Your task to perform on an android device: Turn on the flashlight Image 0: 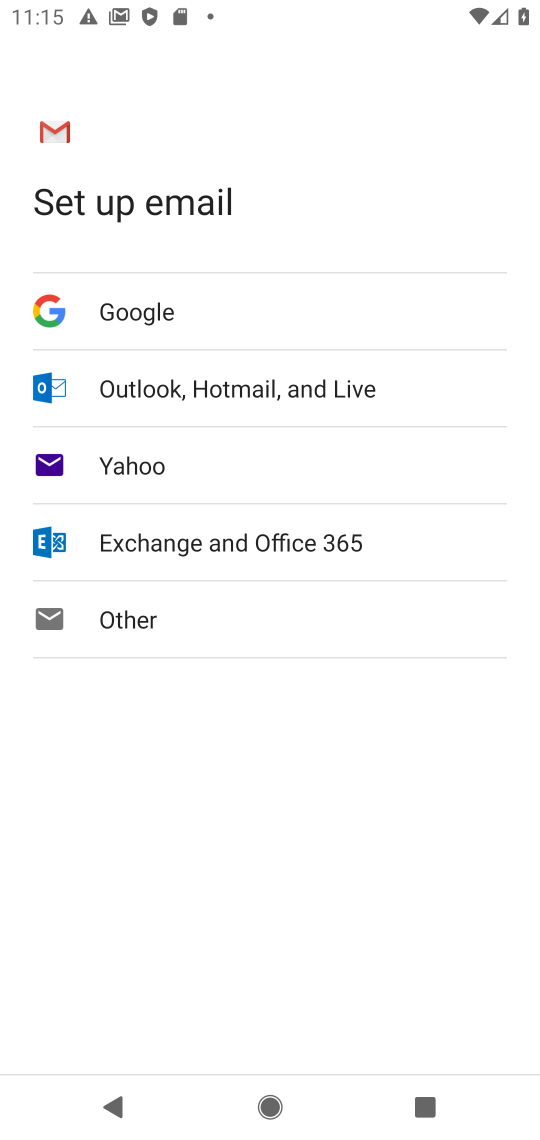
Step 0: press home button
Your task to perform on an android device: Turn on the flashlight Image 1: 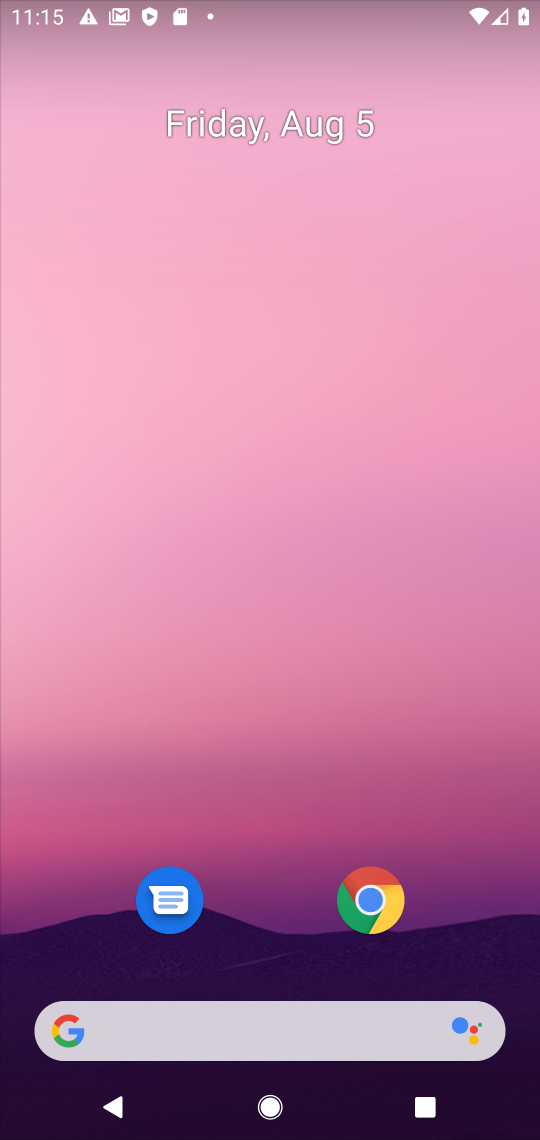
Step 1: drag from (313, 762) to (295, 125)
Your task to perform on an android device: Turn on the flashlight Image 2: 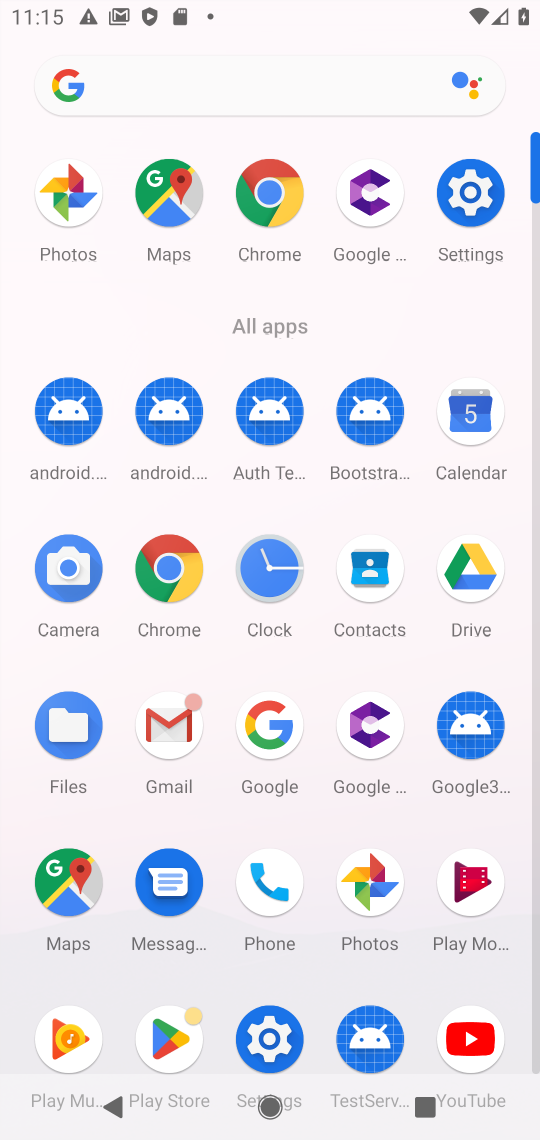
Step 2: click (472, 184)
Your task to perform on an android device: Turn on the flashlight Image 3: 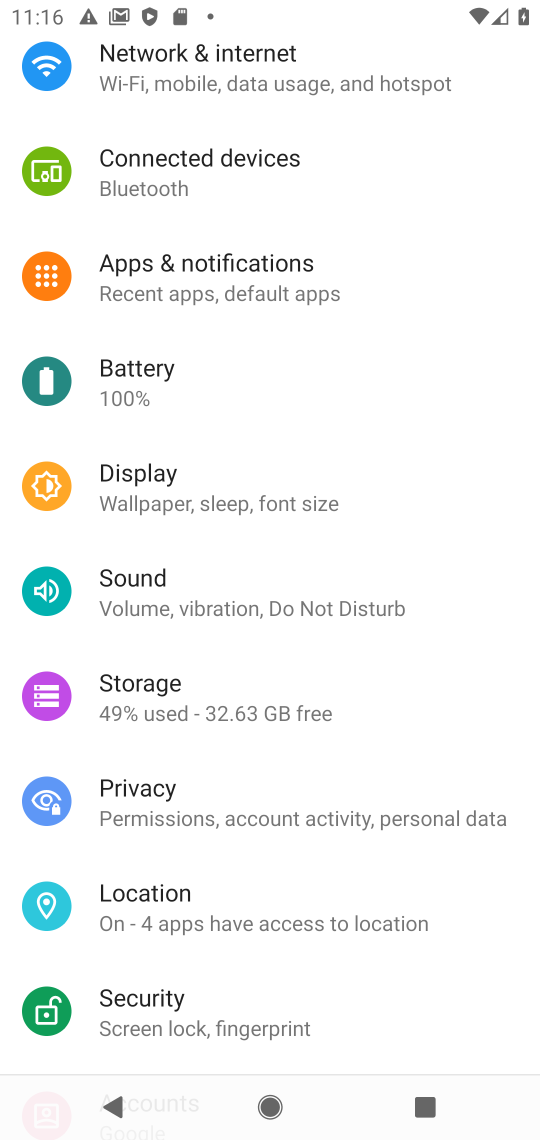
Step 3: task complete